Your task to perform on an android device: set the stopwatch Image 0: 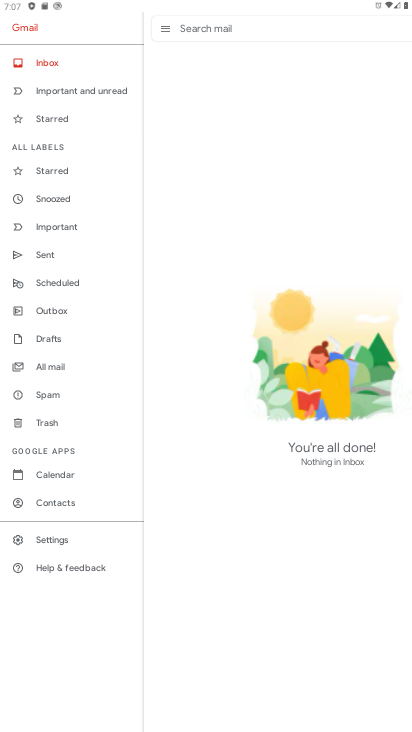
Step 0: press home button
Your task to perform on an android device: set the stopwatch Image 1: 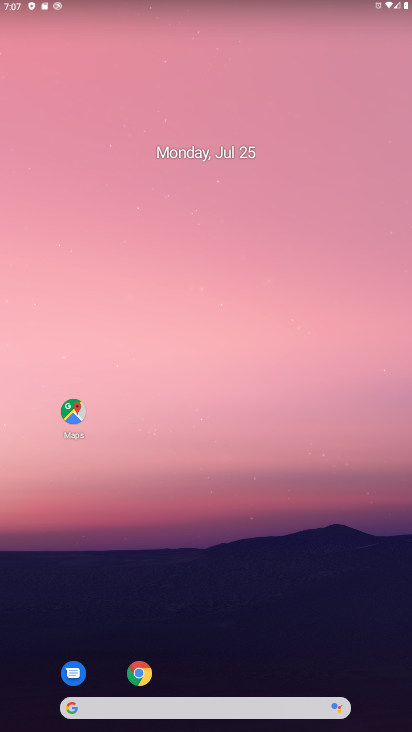
Step 1: drag from (312, 618) to (313, 165)
Your task to perform on an android device: set the stopwatch Image 2: 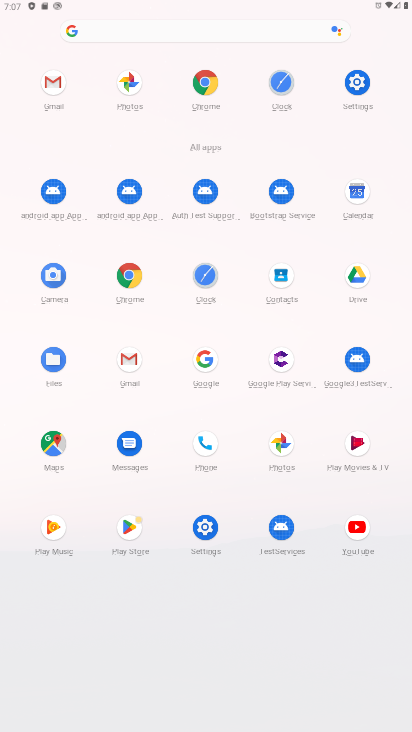
Step 2: click (207, 272)
Your task to perform on an android device: set the stopwatch Image 3: 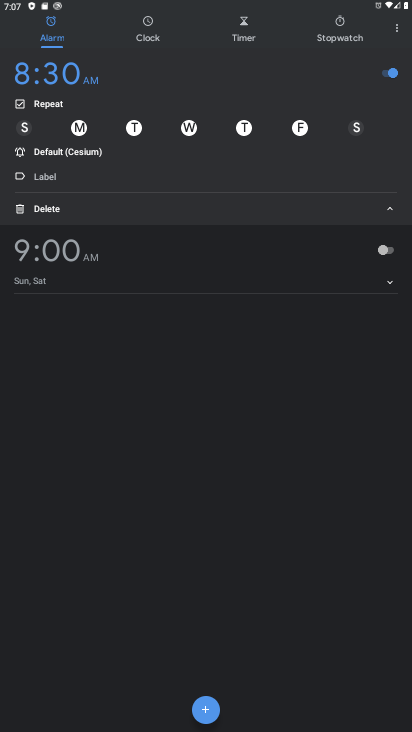
Step 3: click (335, 28)
Your task to perform on an android device: set the stopwatch Image 4: 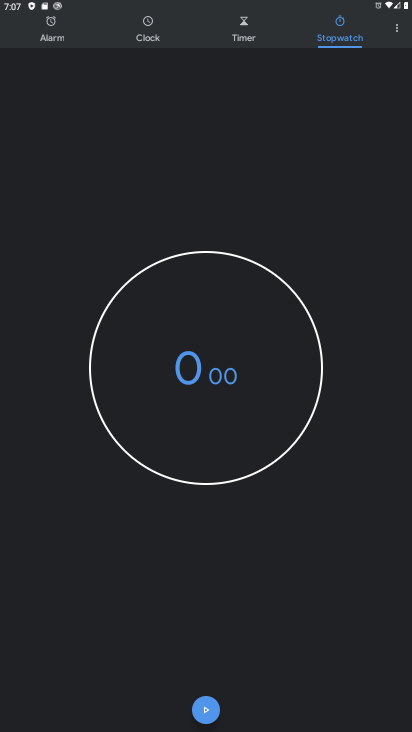
Step 4: click (206, 708)
Your task to perform on an android device: set the stopwatch Image 5: 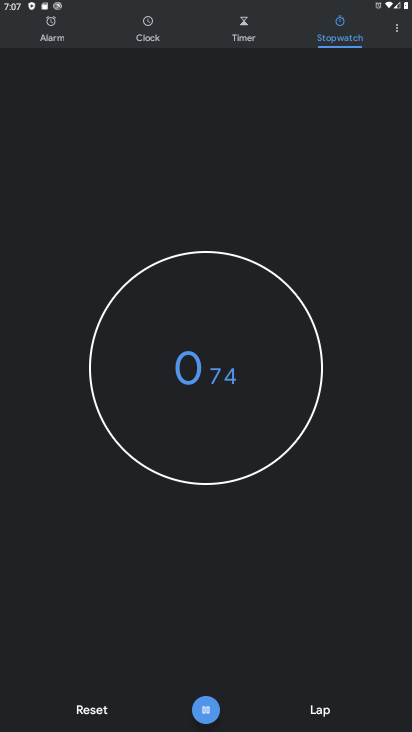
Step 5: click (206, 708)
Your task to perform on an android device: set the stopwatch Image 6: 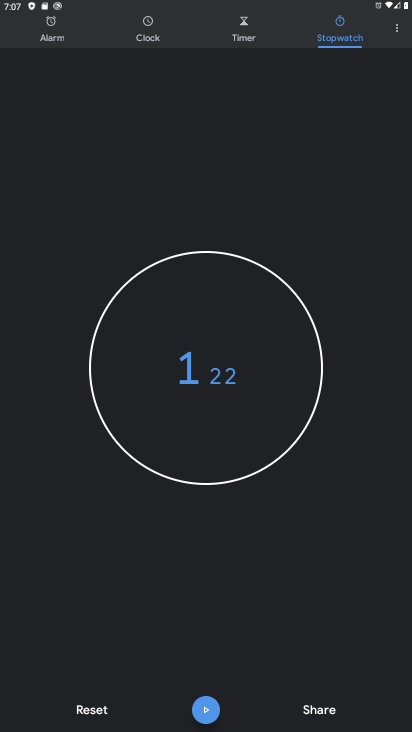
Step 6: task complete